Your task to perform on an android device: Open the stopwatch Image 0: 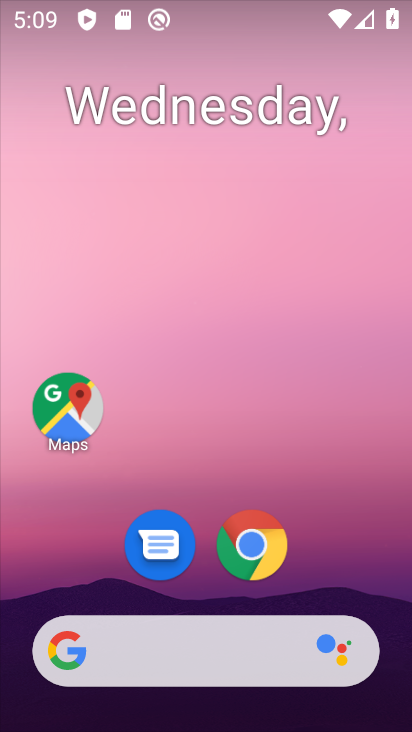
Step 0: drag from (216, 583) to (370, 24)
Your task to perform on an android device: Open the stopwatch Image 1: 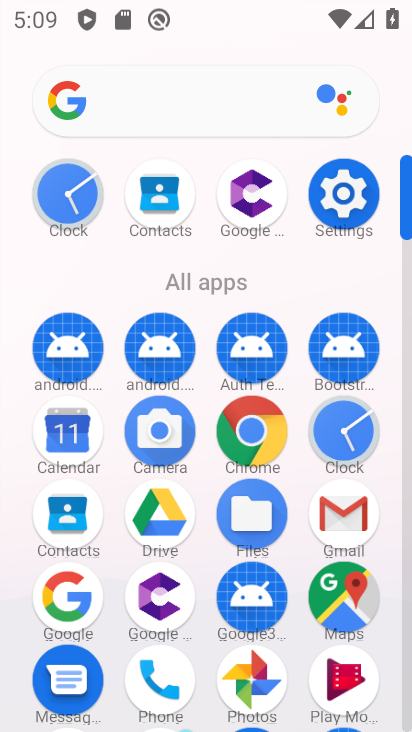
Step 1: click (348, 432)
Your task to perform on an android device: Open the stopwatch Image 2: 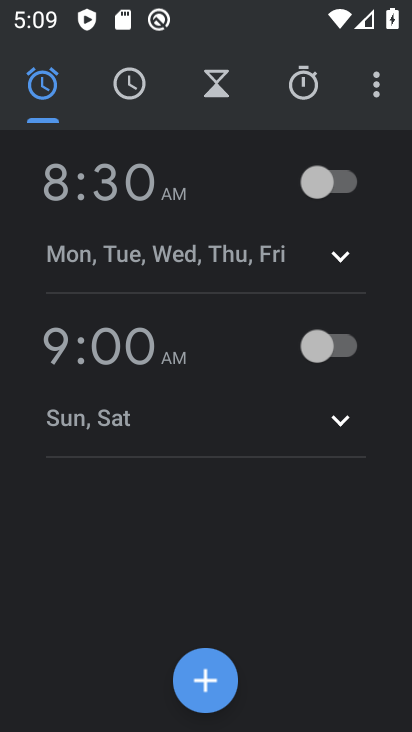
Step 2: click (305, 89)
Your task to perform on an android device: Open the stopwatch Image 3: 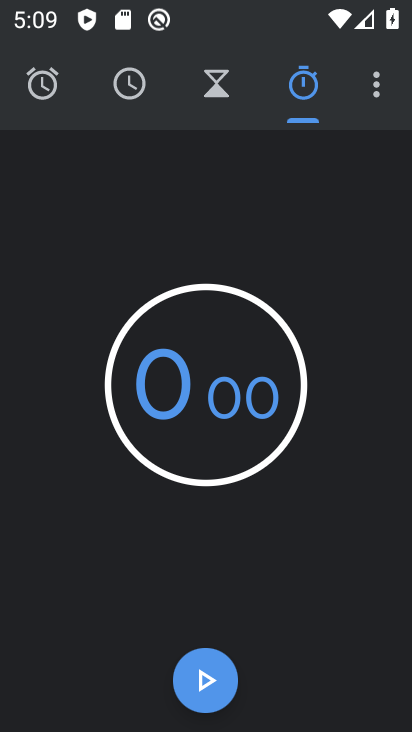
Step 3: task complete